Your task to perform on an android device: toggle notifications settings in the gmail app Image 0: 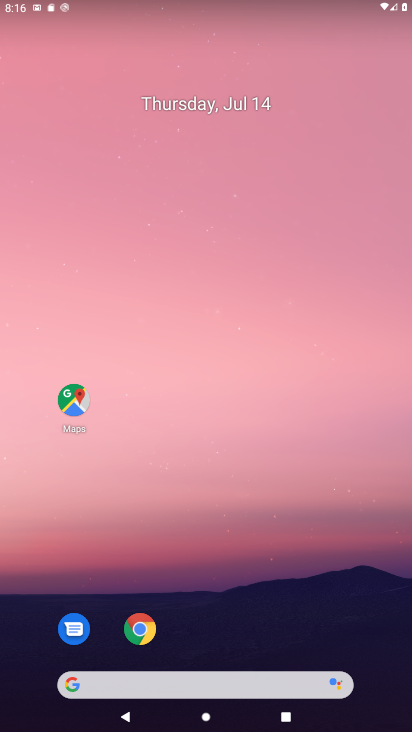
Step 0: drag from (214, 599) to (316, 28)
Your task to perform on an android device: toggle notifications settings in the gmail app Image 1: 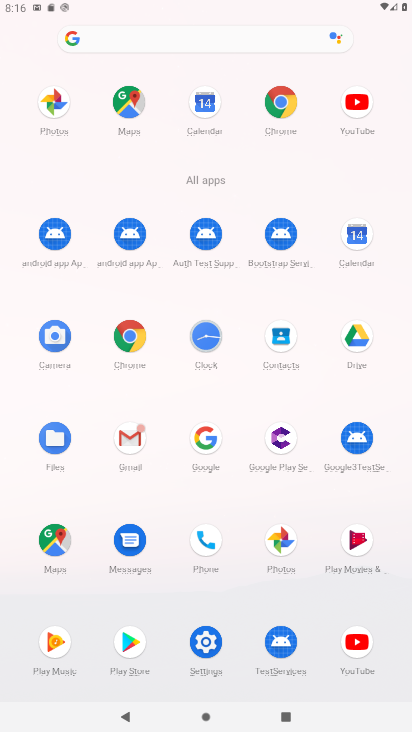
Step 1: click (134, 438)
Your task to perform on an android device: toggle notifications settings in the gmail app Image 2: 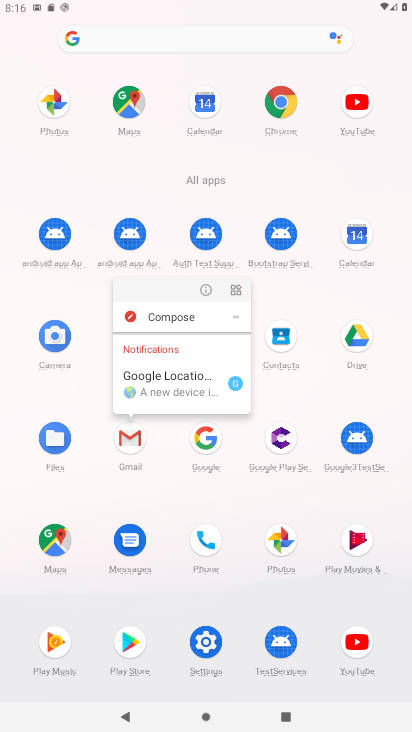
Step 2: click (136, 440)
Your task to perform on an android device: toggle notifications settings in the gmail app Image 3: 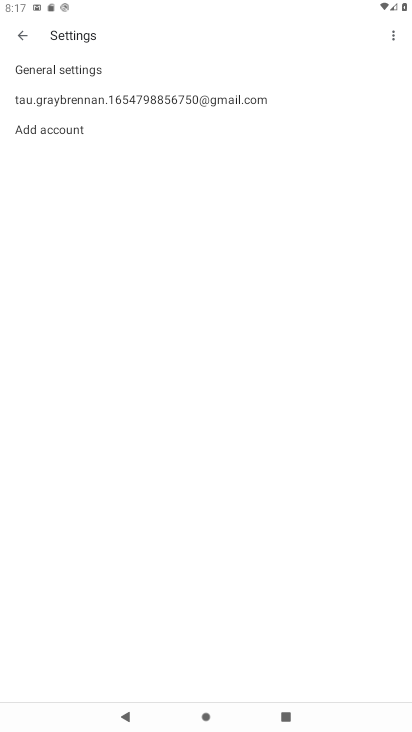
Step 3: click (92, 66)
Your task to perform on an android device: toggle notifications settings in the gmail app Image 4: 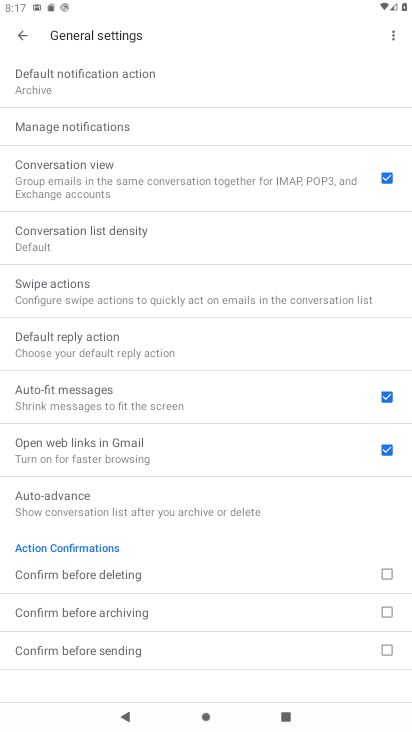
Step 4: click (77, 125)
Your task to perform on an android device: toggle notifications settings in the gmail app Image 5: 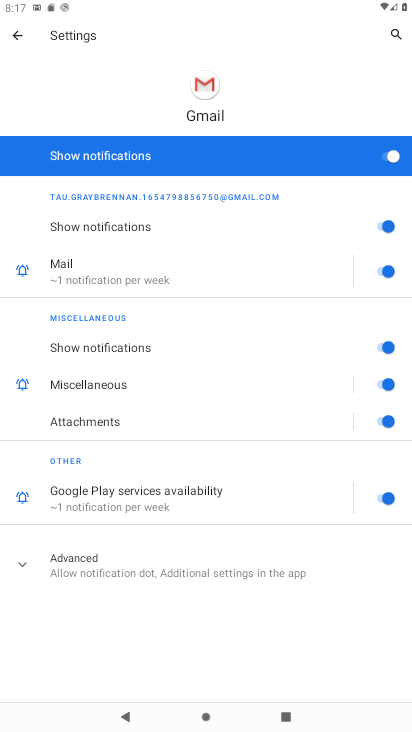
Step 5: click (371, 155)
Your task to perform on an android device: toggle notifications settings in the gmail app Image 6: 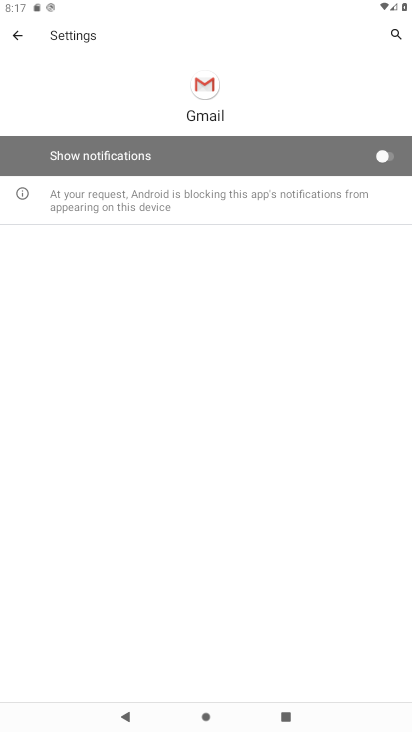
Step 6: task complete